Your task to perform on an android device: Do I have any events tomorrow? Image 0: 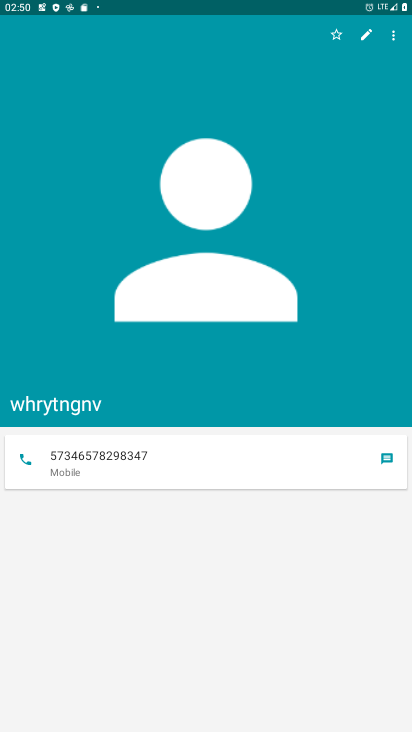
Step 0: press home button
Your task to perform on an android device: Do I have any events tomorrow? Image 1: 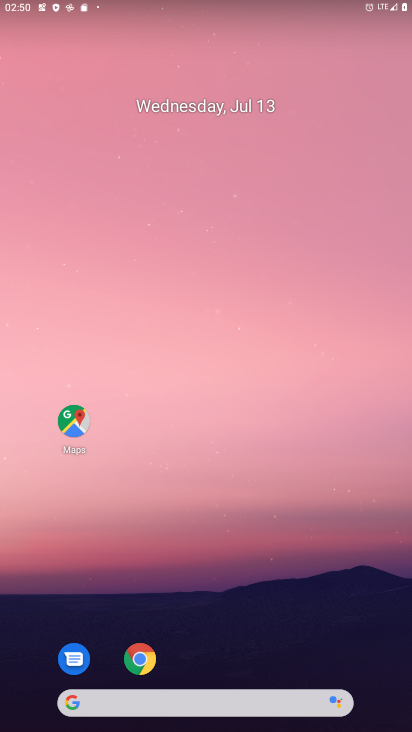
Step 1: drag from (235, 723) to (164, 136)
Your task to perform on an android device: Do I have any events tomorrow? Image 2: 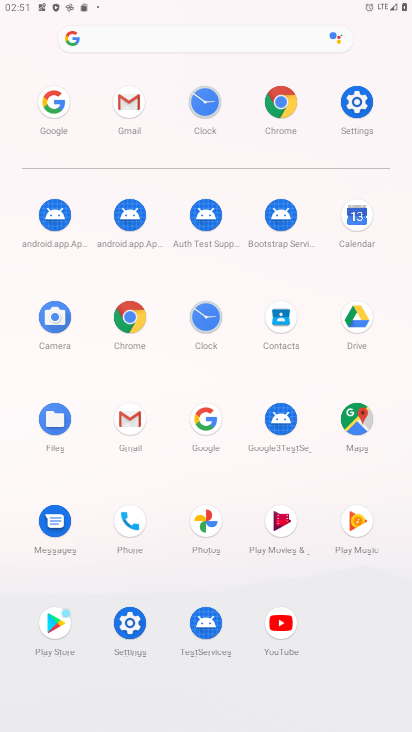
Step 2: click (360, 219)
Your task to perform on an android device: Do I have any events tomorrow? Image 3: 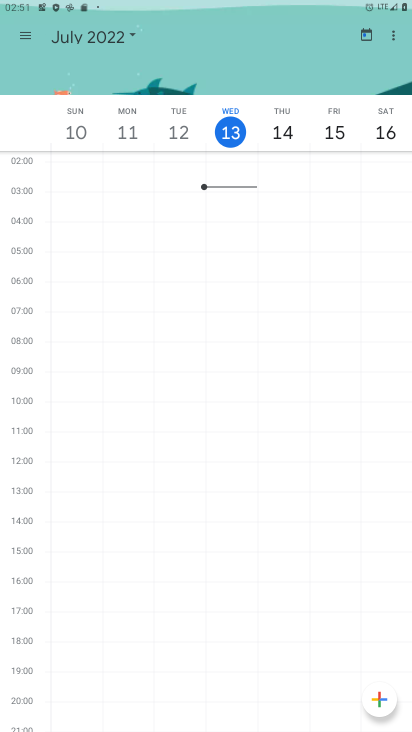
Step 3: click (292, 128)
Your task to perform on an android device: Do I have any events tomorrow? Image 4: 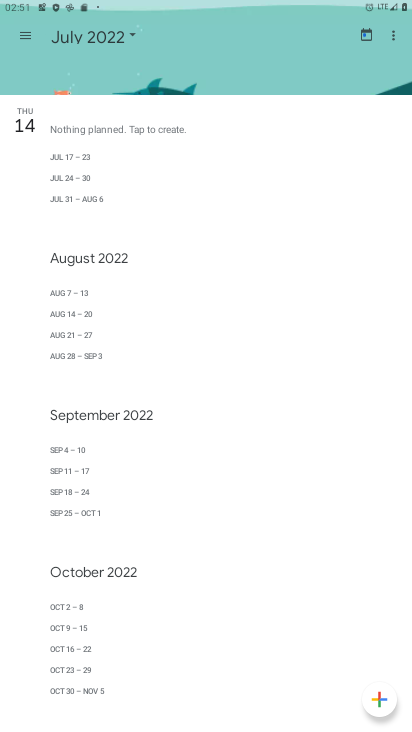
Step 4: task complete